Your task to perform on an android device: turn pop-ups off in chrome Image 0: 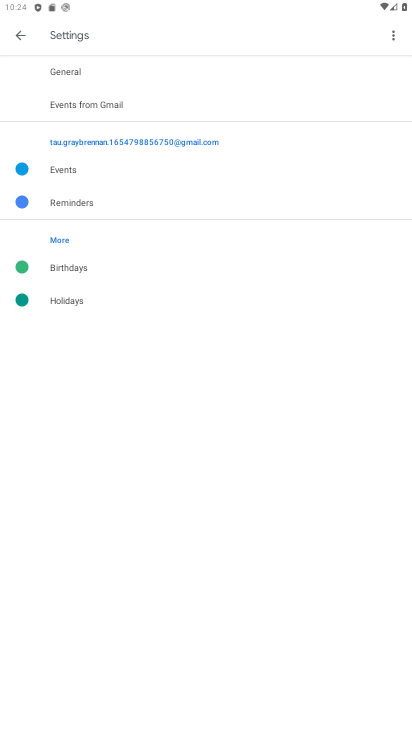
Step 0: press home button
Your task to perform on an android device: turn pop-ups off in chrome Image 1: 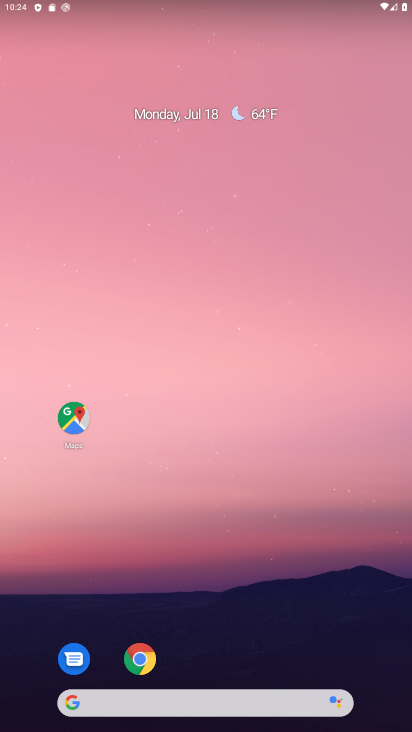
Step 1: click (140, 661)
Your task to perform on an android device: turn pop-ups off in chrome Image 2: 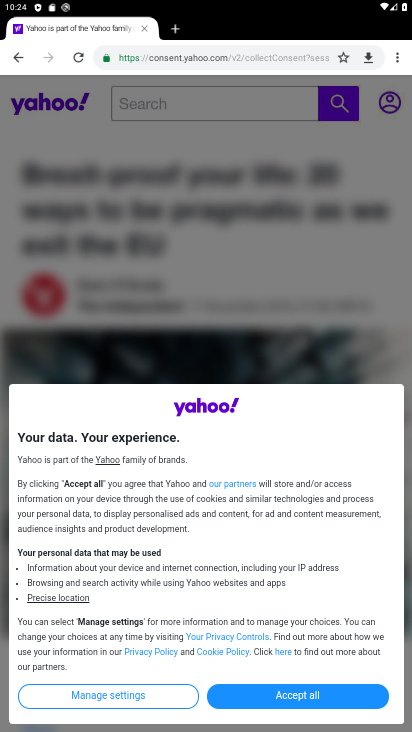
Step 2: click (394, 58)
Your task to perform on an android device: turn pop-ups off in chrome Image 3: 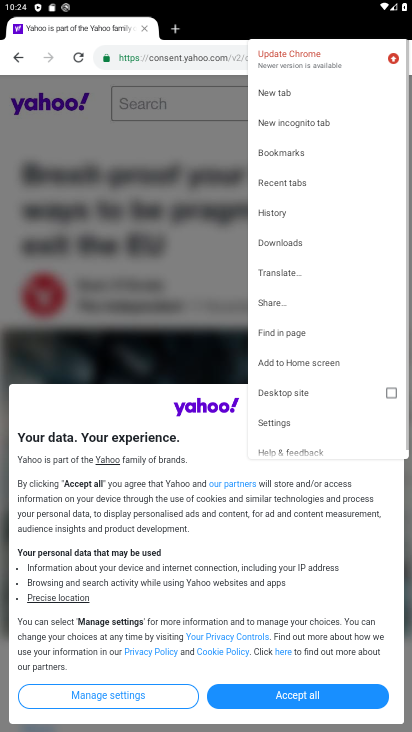
Step 3: click (276, 425)
Your task to perform on an android device: turn pop-ups off in chrome Image 4: 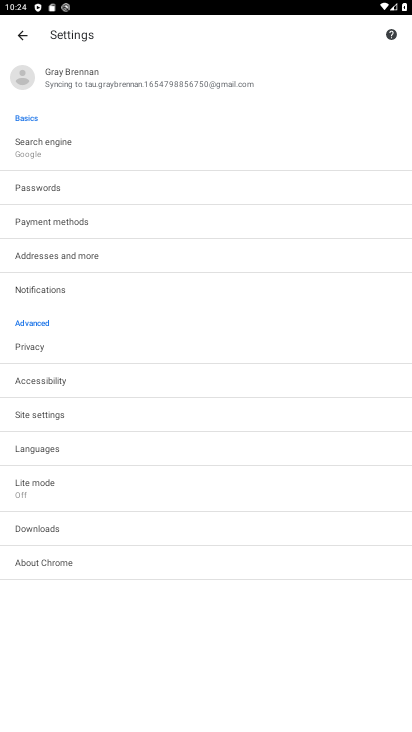
Step 4: click (69, 410)
Your task to perform on an android device: turn pop-ups off in chrome Image 5: 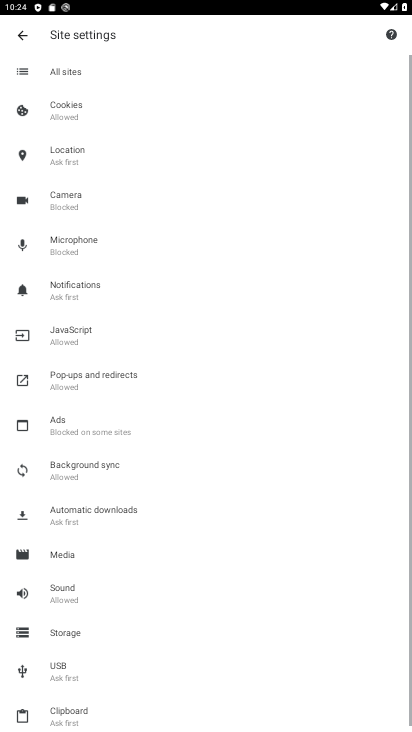
Step 5: click (91, 377)
Your task to perform on an android device: turn pop-ups off in chrome Image 6: 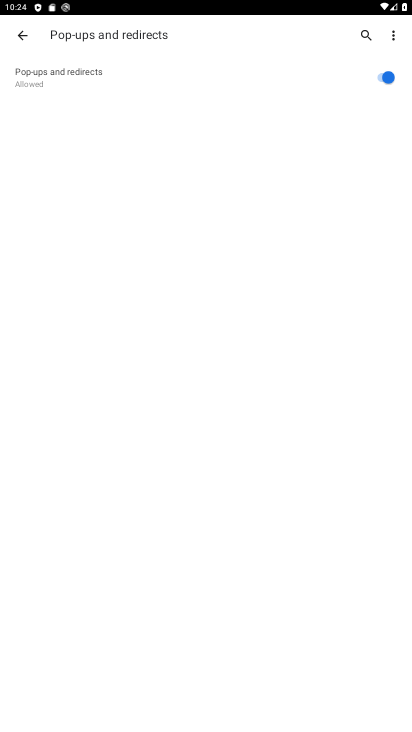
Step 6: click (384, 72)
Your task to perform on an android device: turn pop-ups off in chrome Image 7: 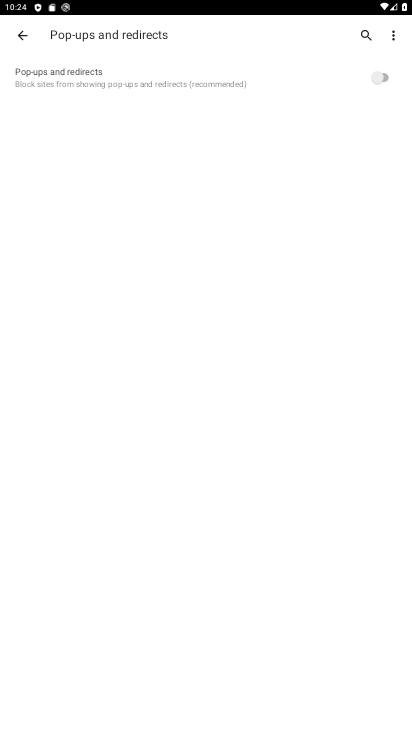
Step 7: task complete